Your task to perform on an android device: turn on sleep mode Image 0: 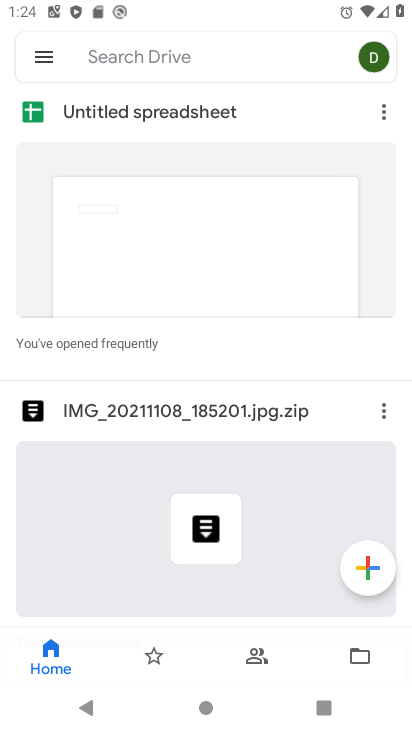
Step 0: press home button
Your task to perform on an android device: turn on sleep mode Image 1: 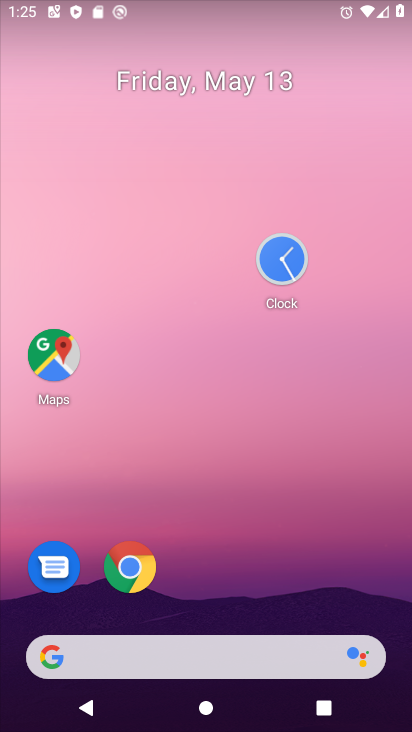
Step 1: drag from (312, 551) to (323, 132)
Your task to perform on an android device: turn on sleep mode Image 2: 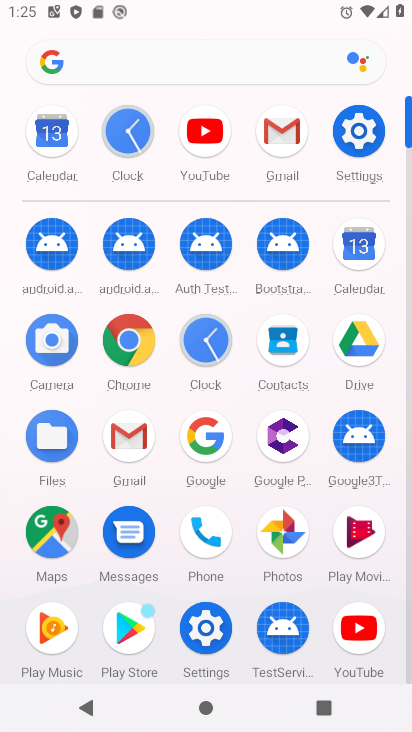
Step 2: click (360, 150)
Your task to perform on an android device: turn on sleep mode Image 3: 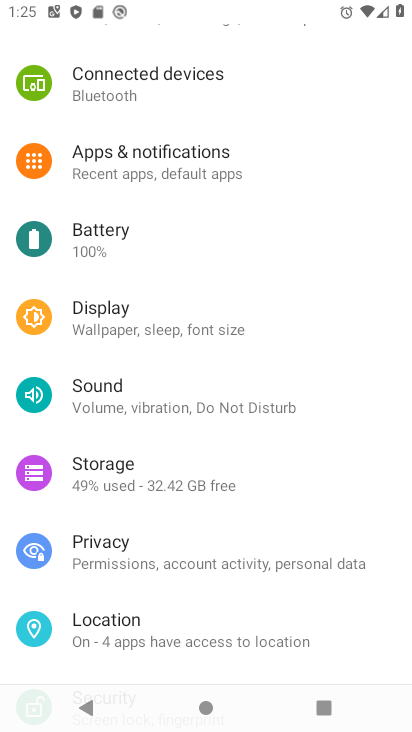
Step 3: drag from (191, 221) to (173, 484)
Your task to perform on an android device: turn on sleep mode Image 4: 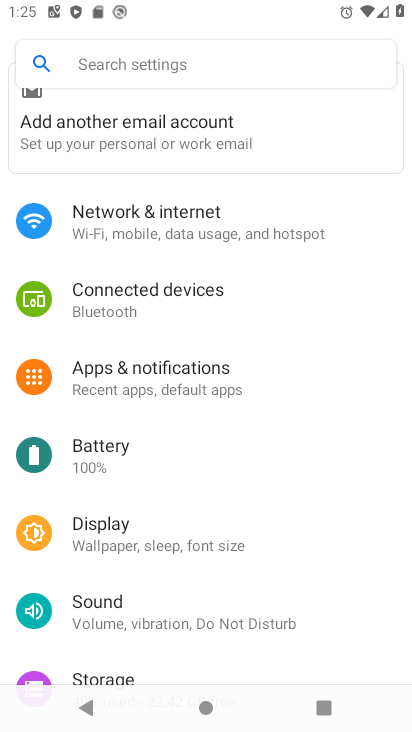
Step 4: click (150, 538)
Your task to perform on an android device: turn on sleep mode Image 5: 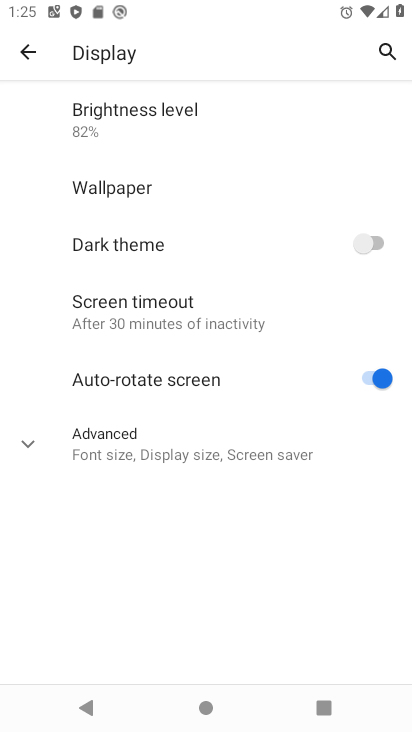
Step 5: click (207, 308)
Your task to perform on an android device: turn on sleep mode Image 6: 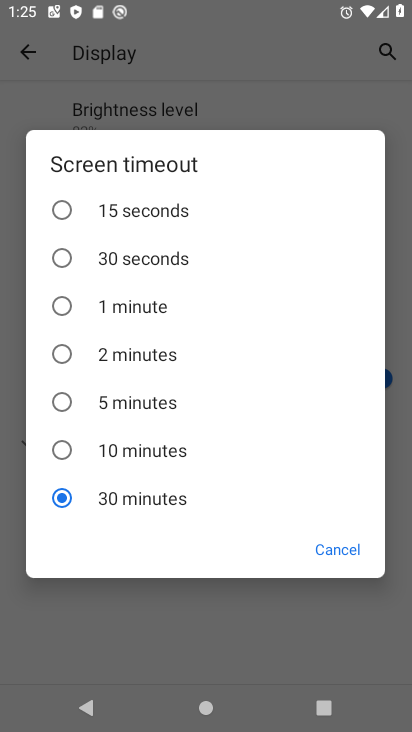
Step 6: click (218, 250)
Your task to perform on an android device: turn on sleep mode Image 7: 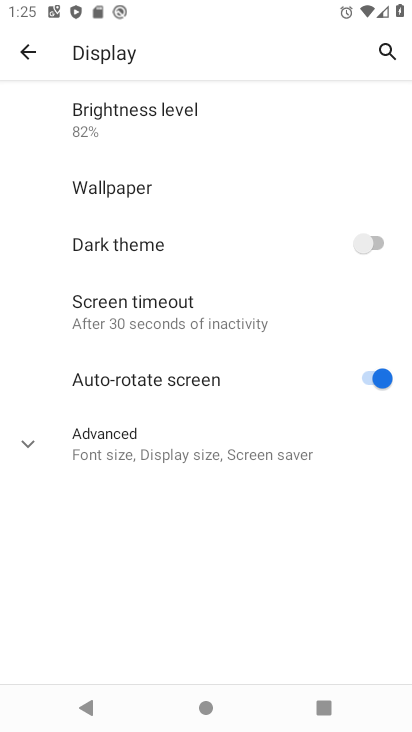
Step 7: task complete